Your task to perform on an android device: toggle improve location accuracy Image 0: 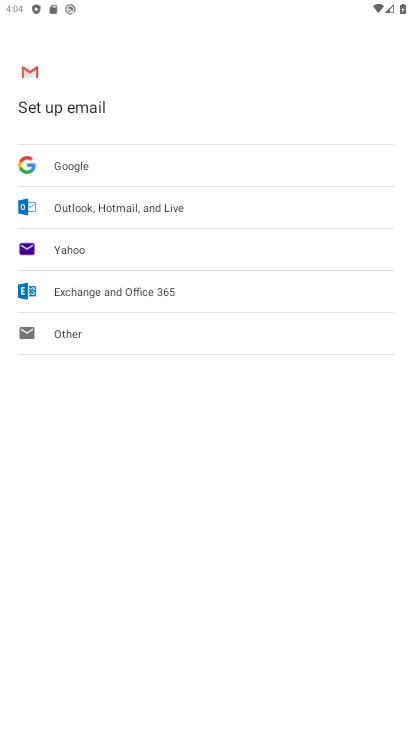
Step 0: press home button
Your task to perform on an android device: toggle improve location accuracy Image 1: 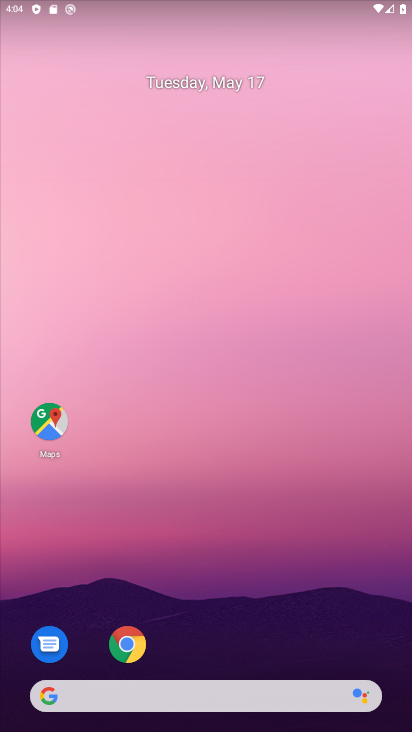
Step 1: drag from (178, 597) to (251, 209)
Your task to perform on an android device: toggle improve location accuracy Image 2: 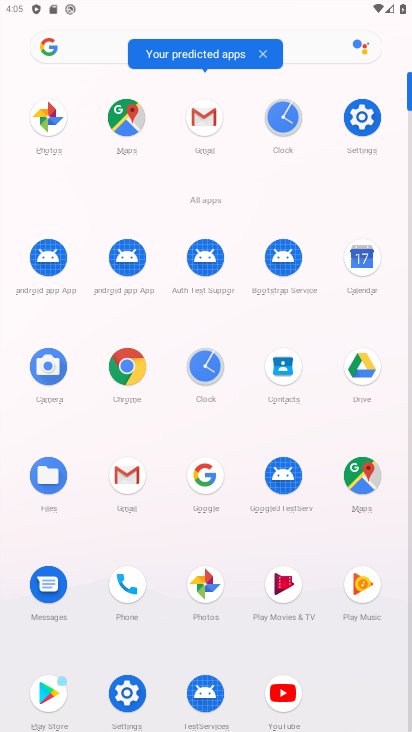
Step 2: drag from (132, 606) to (181, 429)
Your task to perform on an android device: toggle improve location accuracy Image 3: 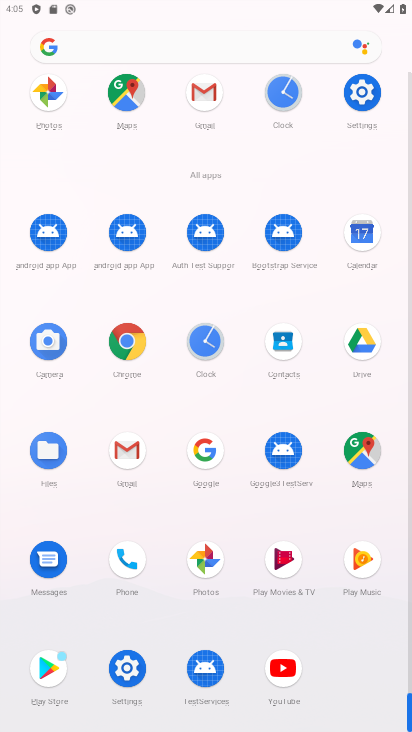
Step 3: click (134, 666)
Your task to perform on an android device: toggle improve location accuracy Image 4: 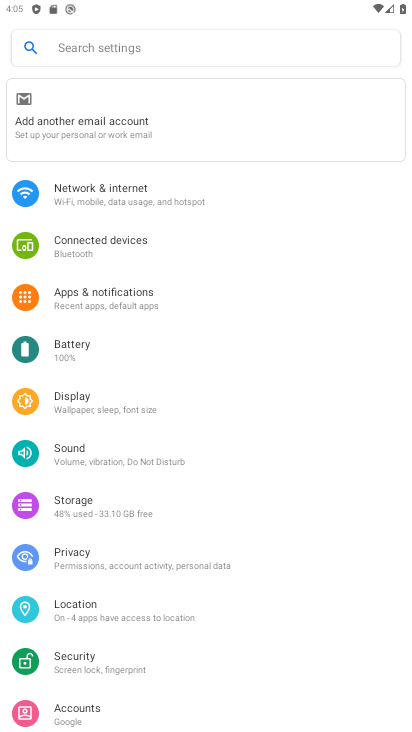
Step 4: click (152, 612)
Your task to perform on an android device: toggle improve location accuracy Image 5: 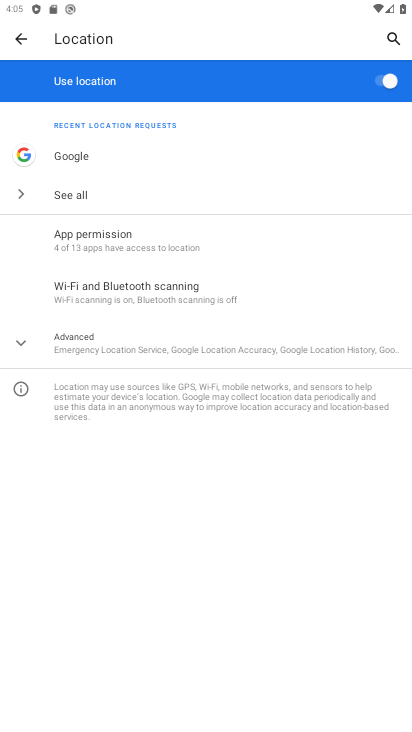
Step 5: click (153, 348)
Your task to perform on an android device: toggle improve location accuracy Image 6: 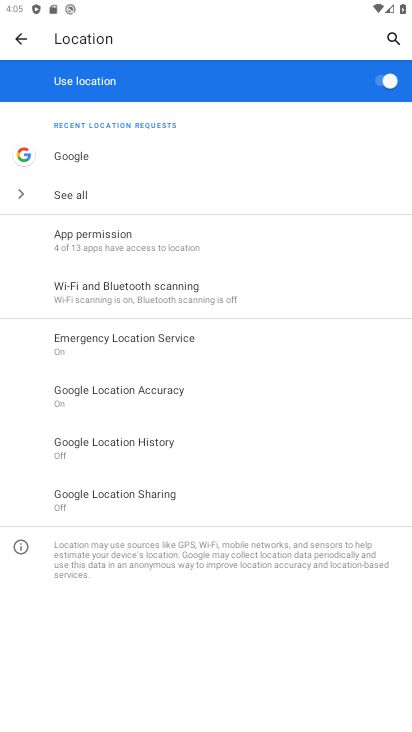
Step 6: click (172, 399)
Your task to perform on an android device: toggle improve location accuracy Image 7: 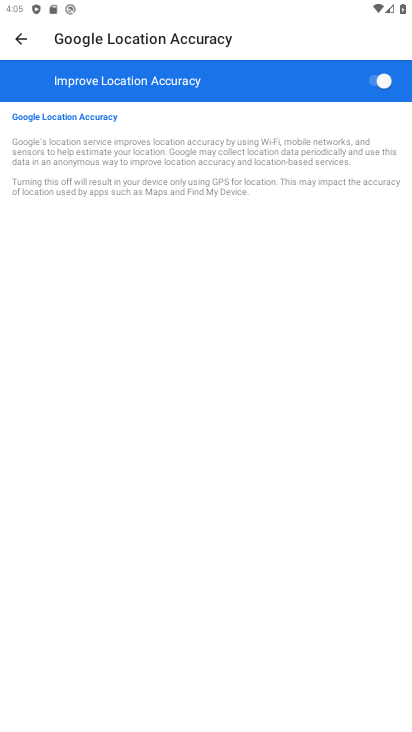
Step 7: click (368, 81)
Your task to perform on an android device: toggle improve location accuracy Image 8: 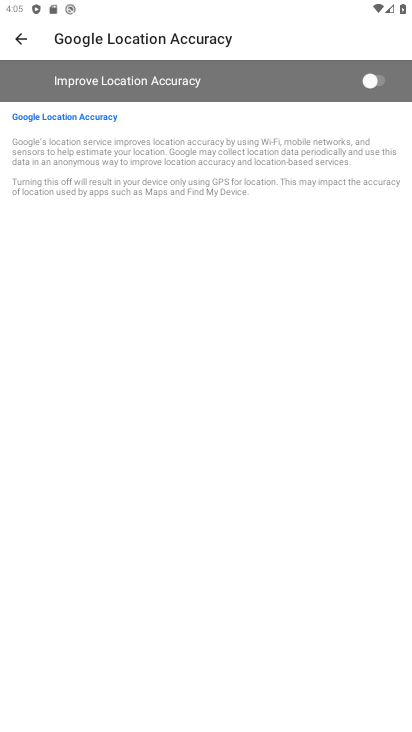
Step 8: task complete